Your task to perform on an android device: Show me popular games on the Play Store Image 0: 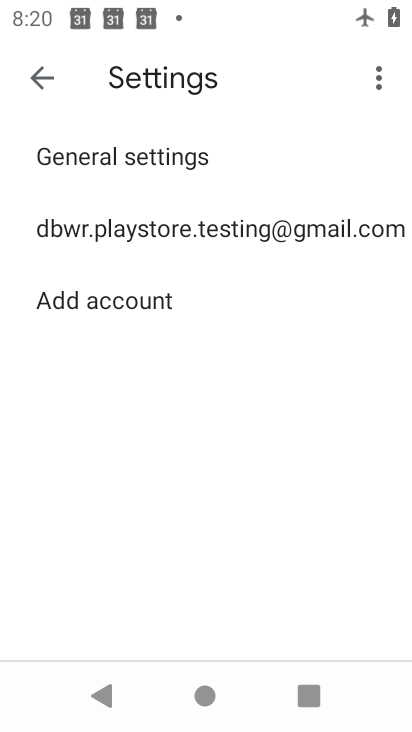
Step 0: press home button
Your task to perform on an android device: Show me popular games on the Play Store Image 1: 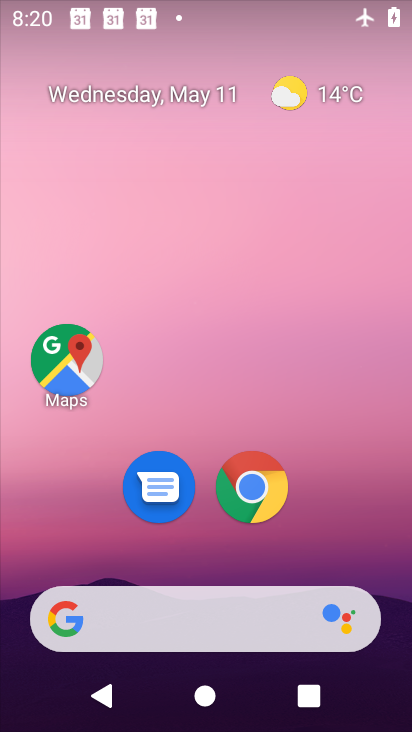
Step 1: drag from (229, 725) to (251, 159)
Your task to perform on an android device: Show me popular games on the Play Store Image 2: 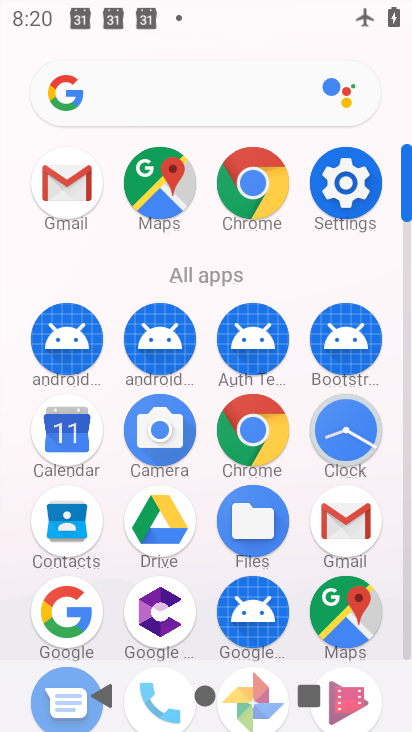
Step 2: drag from (202, 596) to (213, 181)
Your task to perform on an android device: Show me popular games on the Play Store Image 3: 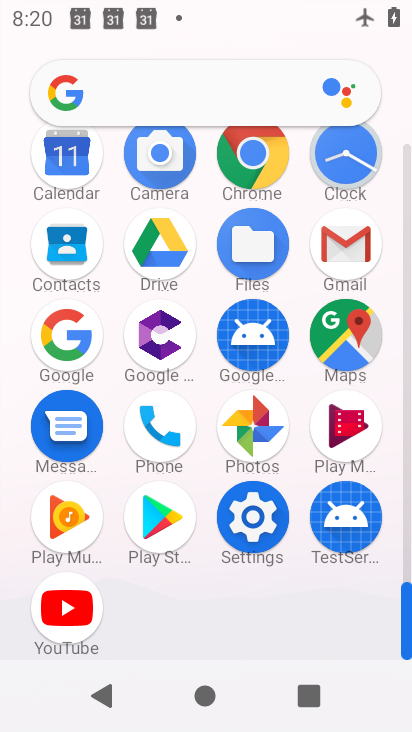
Step 3: click (155, 519)
Your task to perform on an android device: Show me popular games on the Play Store Image 4: 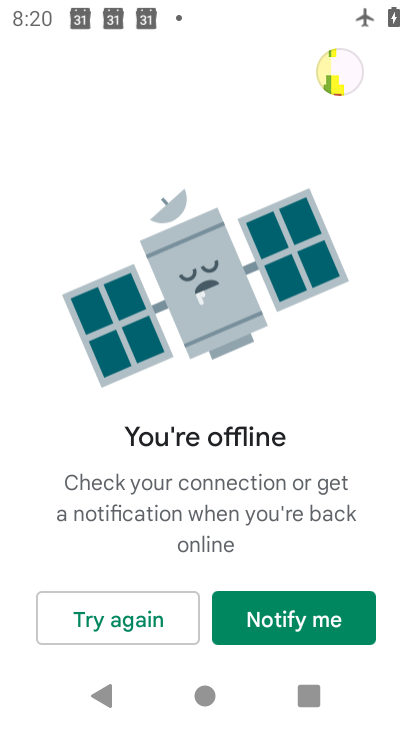
Step 4: task complete